Your task to perform on an android device: Search for razer nari on amazon, select the first entry, and add it to the cart. Image 0: 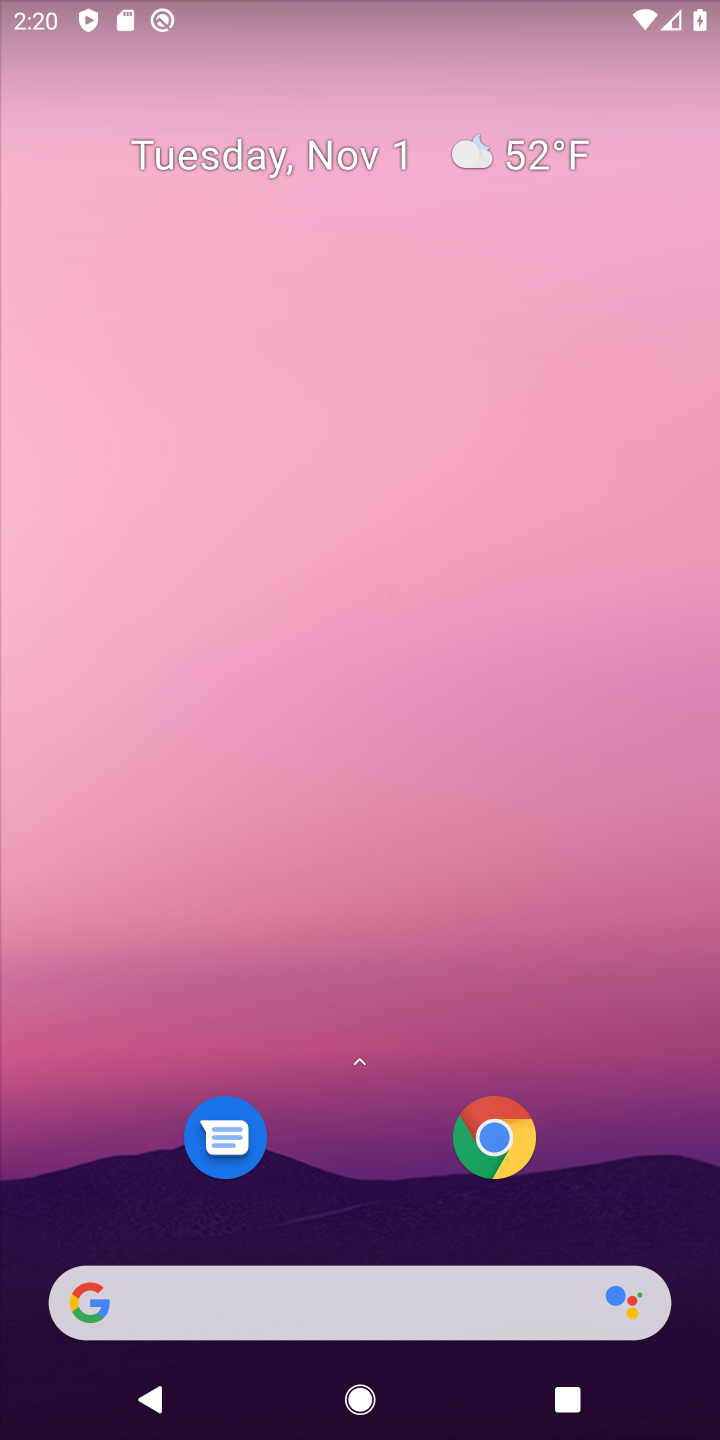
Step 0: click (225, 1311)
Your task to perform on an android device: Search for razer nari on amazon, select the first entry, and add it to the cart. Image 1: 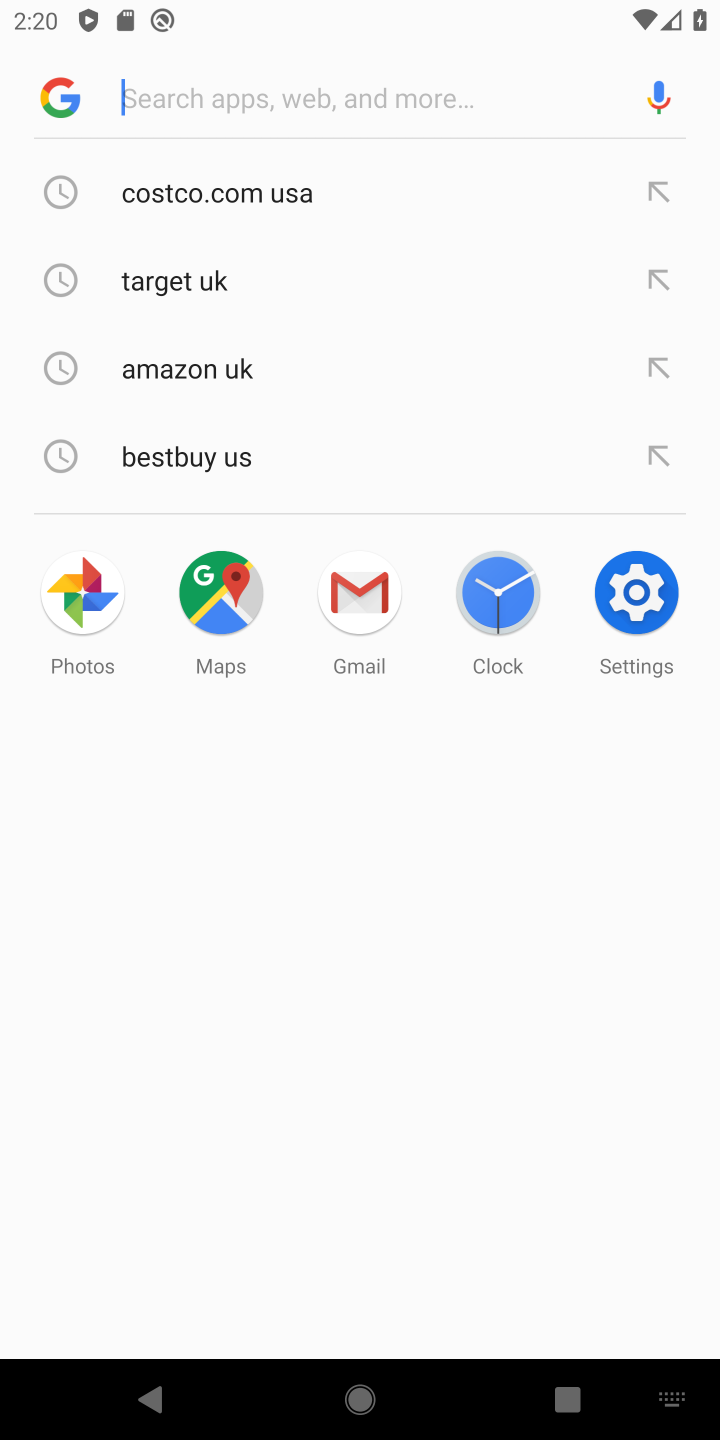
Step 1: type "amazon"
Your task to perform on an android device: Search for razer nari on amazon, select the first entry, and add it to the cart. Image 2: 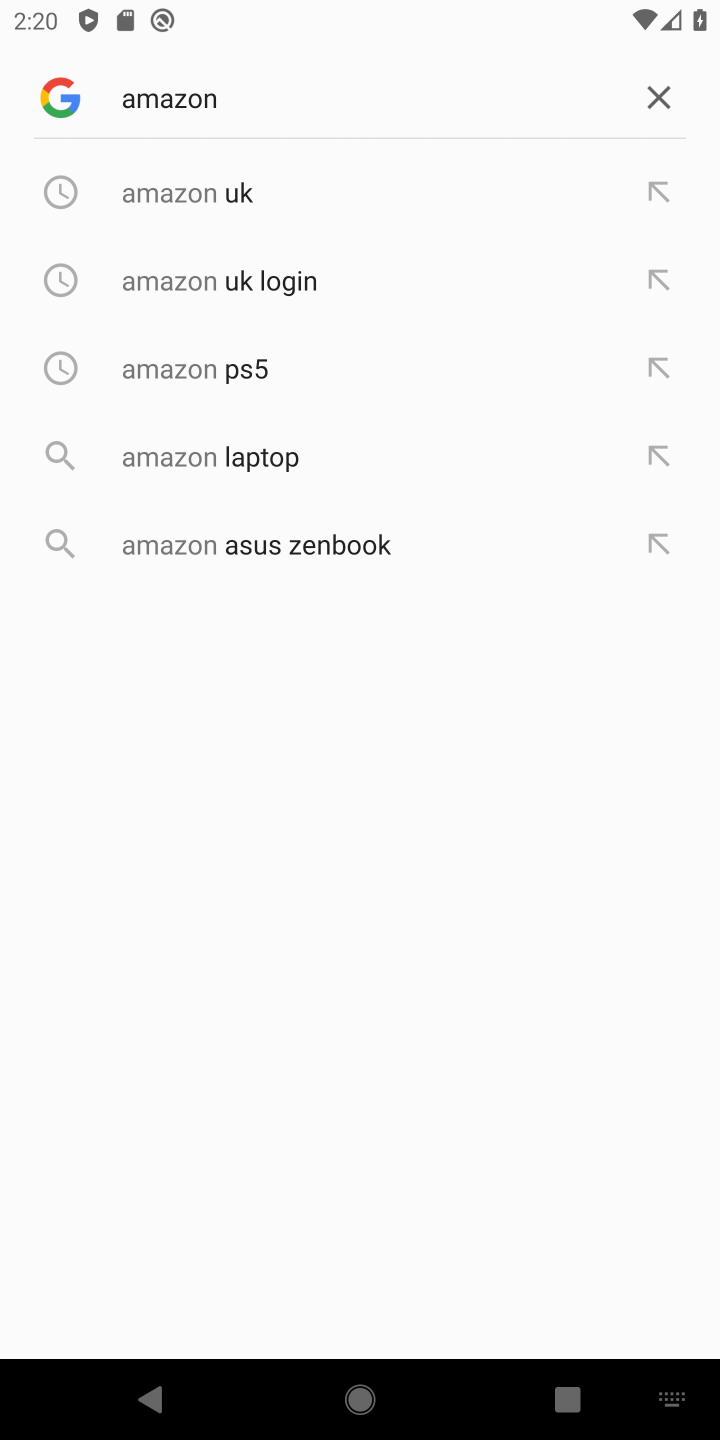
Step 2: click (198, 179)
Your task to perform on an android device: Search for razer nari on amazon, select the first entry, and add it to the cart. Image 3: 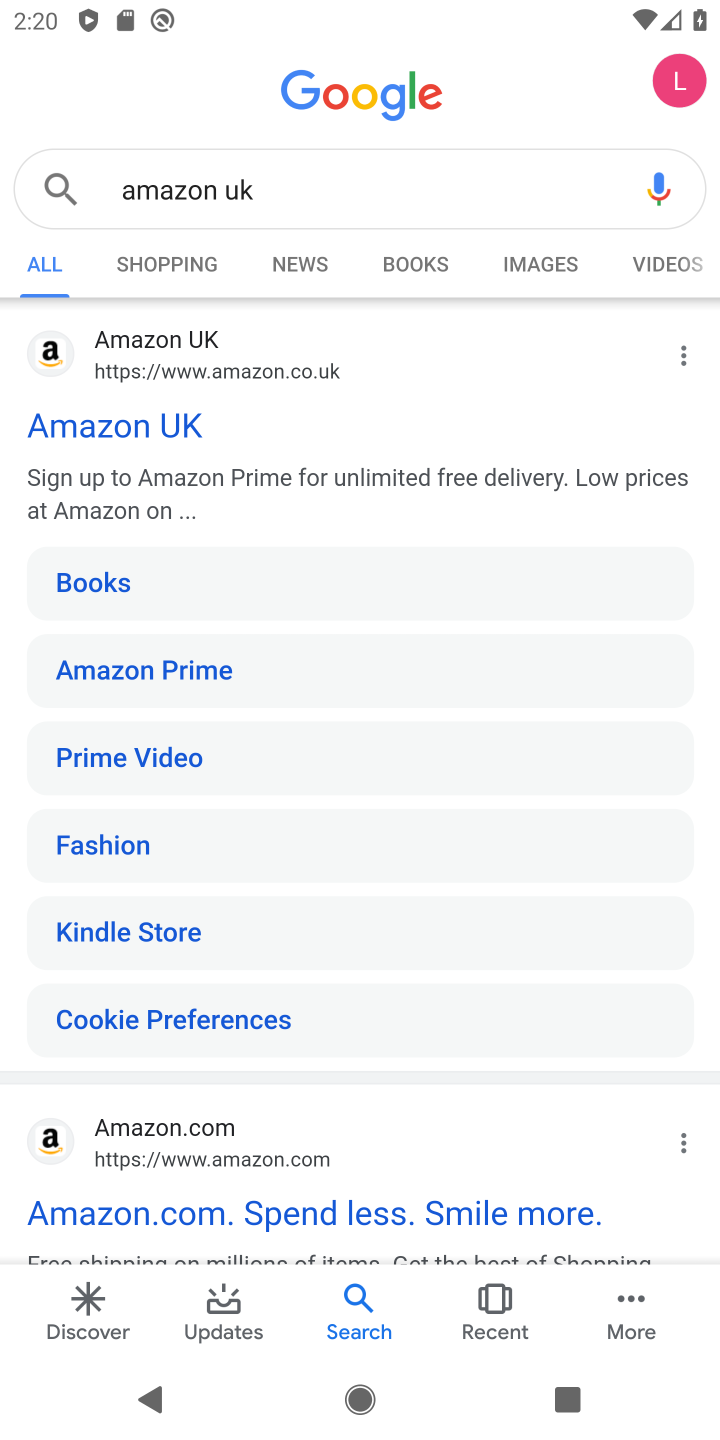
Step 3: click (142, 445)
Your task to perform on an android device: Search for razer nari on amazon, select the first entry, and add it to the cart. Image 4: 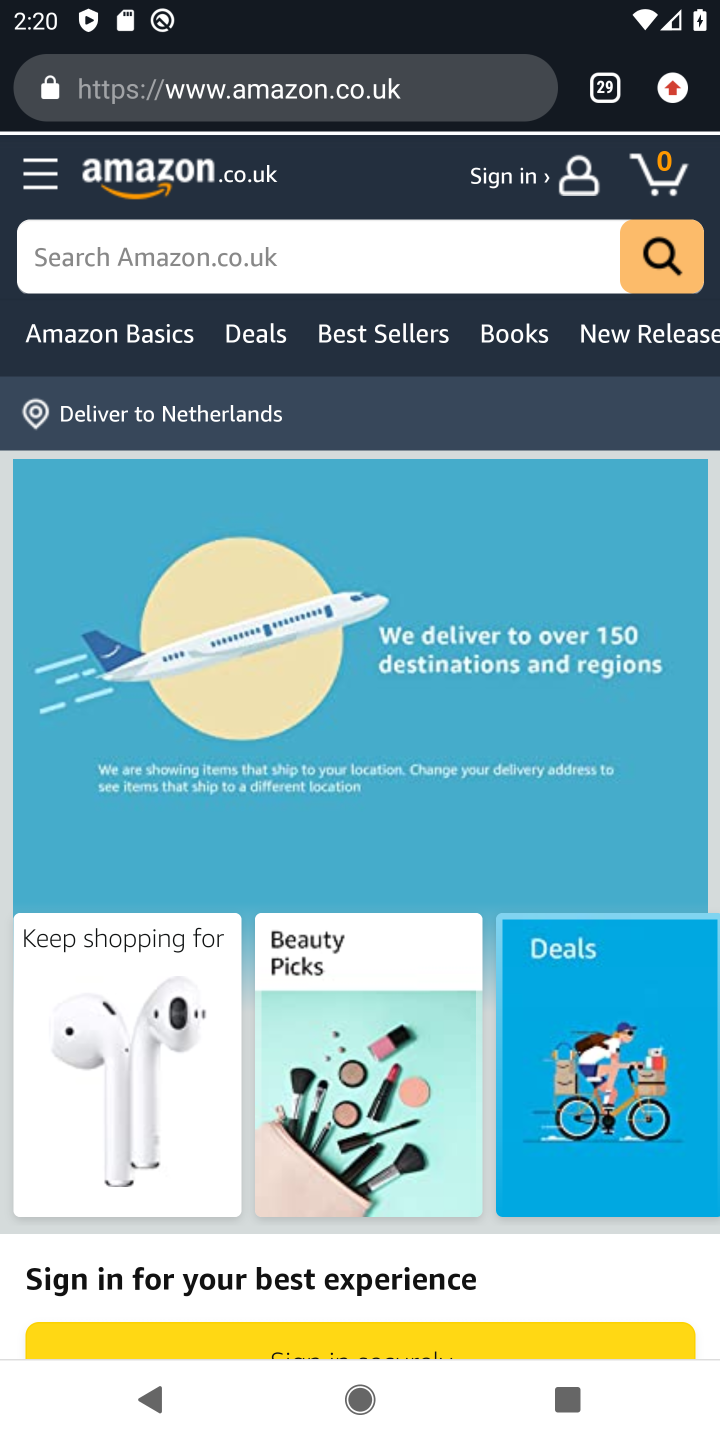
Step 4: click (352, 265)
Your task to perform on an android device: Search for razer nari on amazon, select the first entry, and add it to the cart. Image 5: 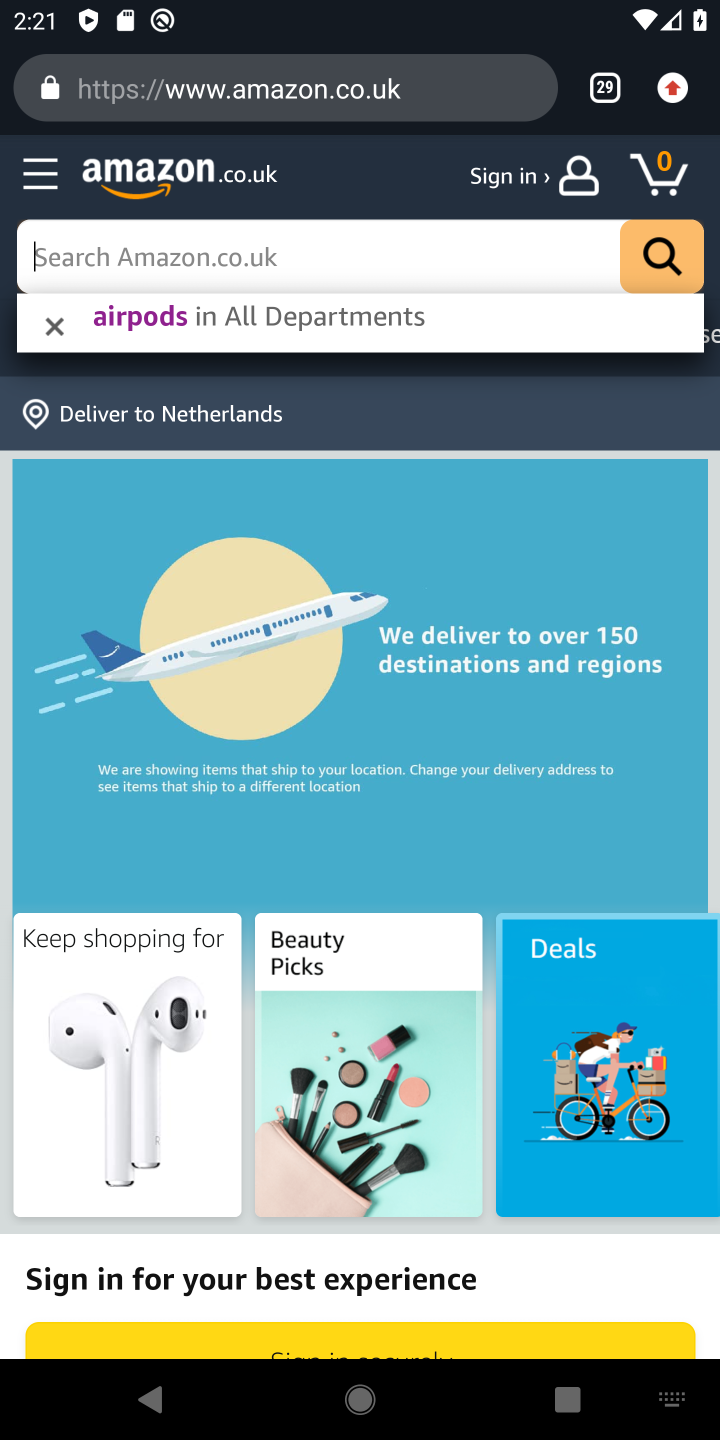
Step 5: type "razer naarui"
Your task to perform on an android device: Search for razer nari on amazon, select the first entry, and add it to the cart. Image 6: 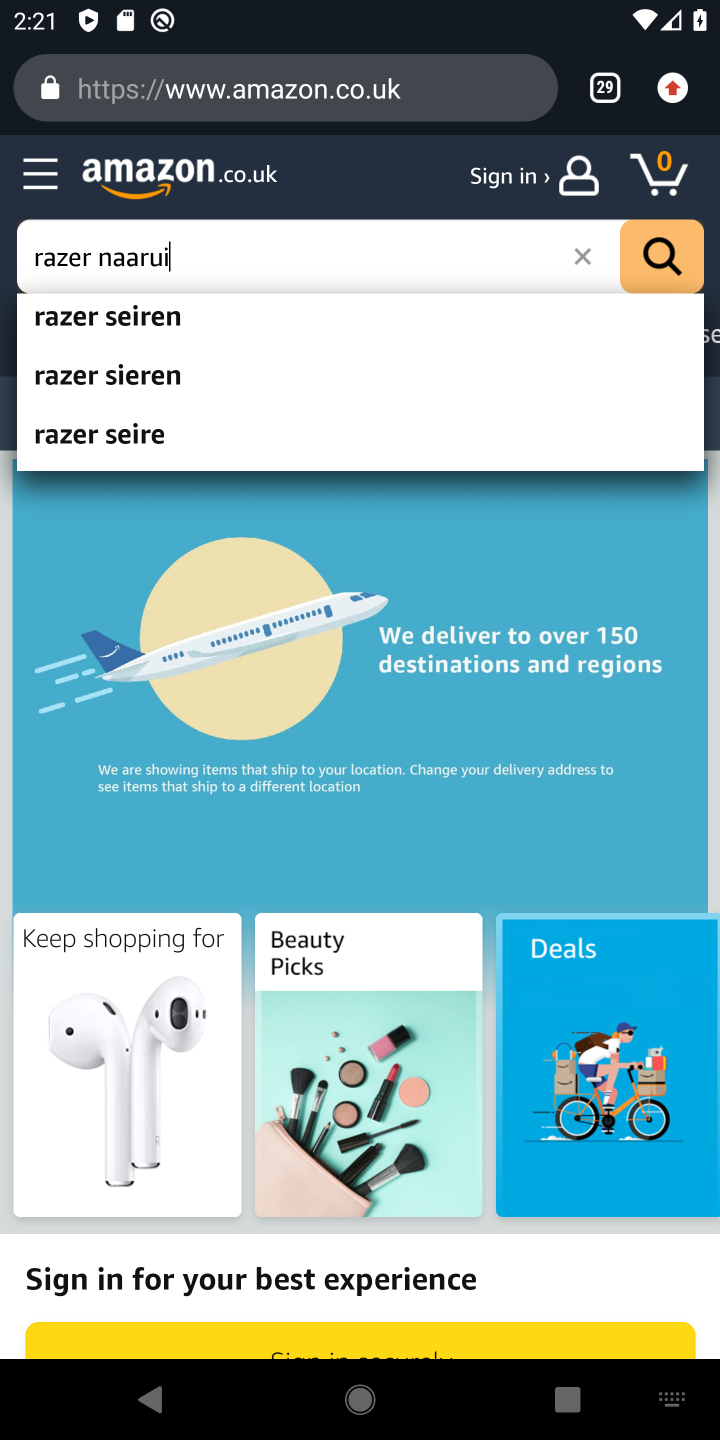
Step 6: click (178, 330)
Your task to perform on an android device: Search for razer nari on amazon, select the first entry, and add it to the cart. Image 7: 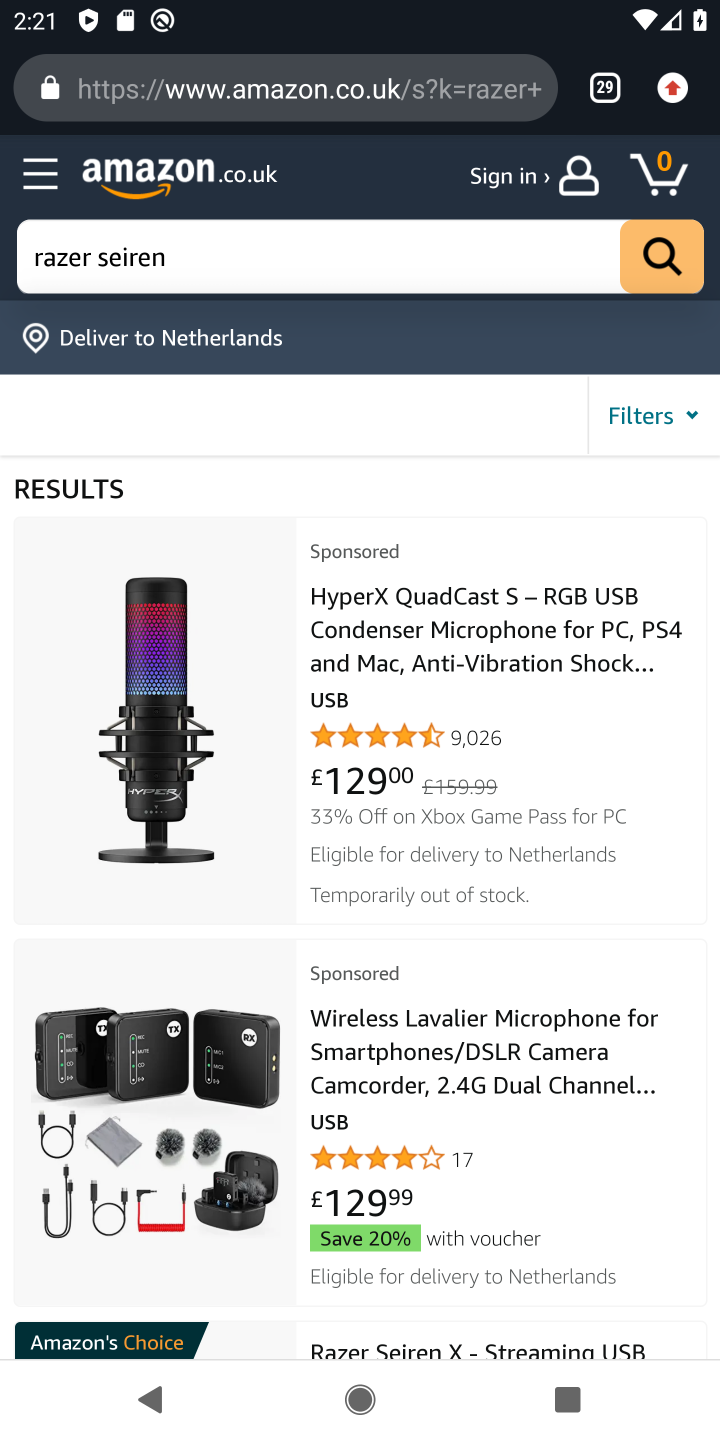
Step 7: click (417, 689)
Your task to perform on an android device: Search for razer nari on amazon, select the first entry, and add it to the cart. Image 8: 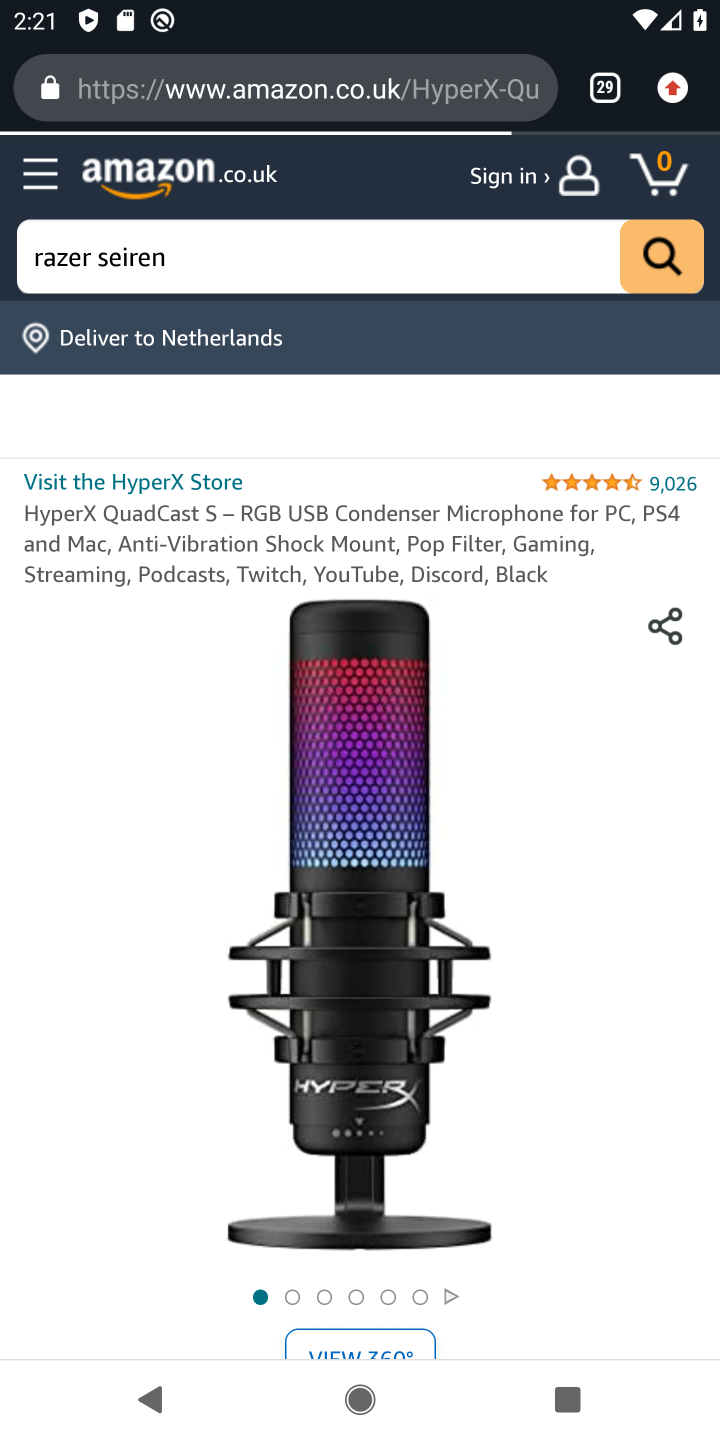
Step 8: drag from (511, 1293) to (321, 549)
Your task to perform on an android device: Search for razer nari on amazon, select the first entry, and add it to the cart. Image 9: 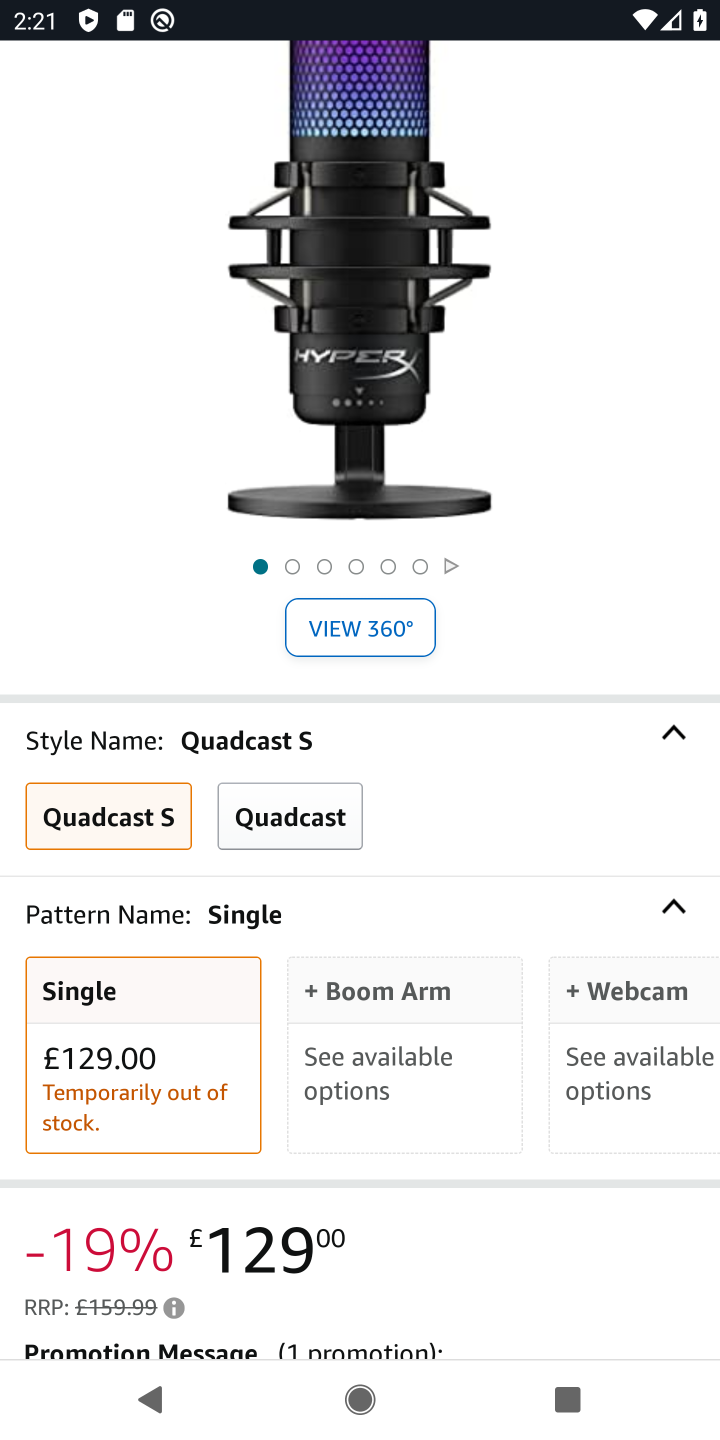
Step 9: drag from (413, 1204) to (311, 485)
Your task to perform on an android device: Search for razer nari on amazon, select the first entry, and add it to the cart. Image 10: 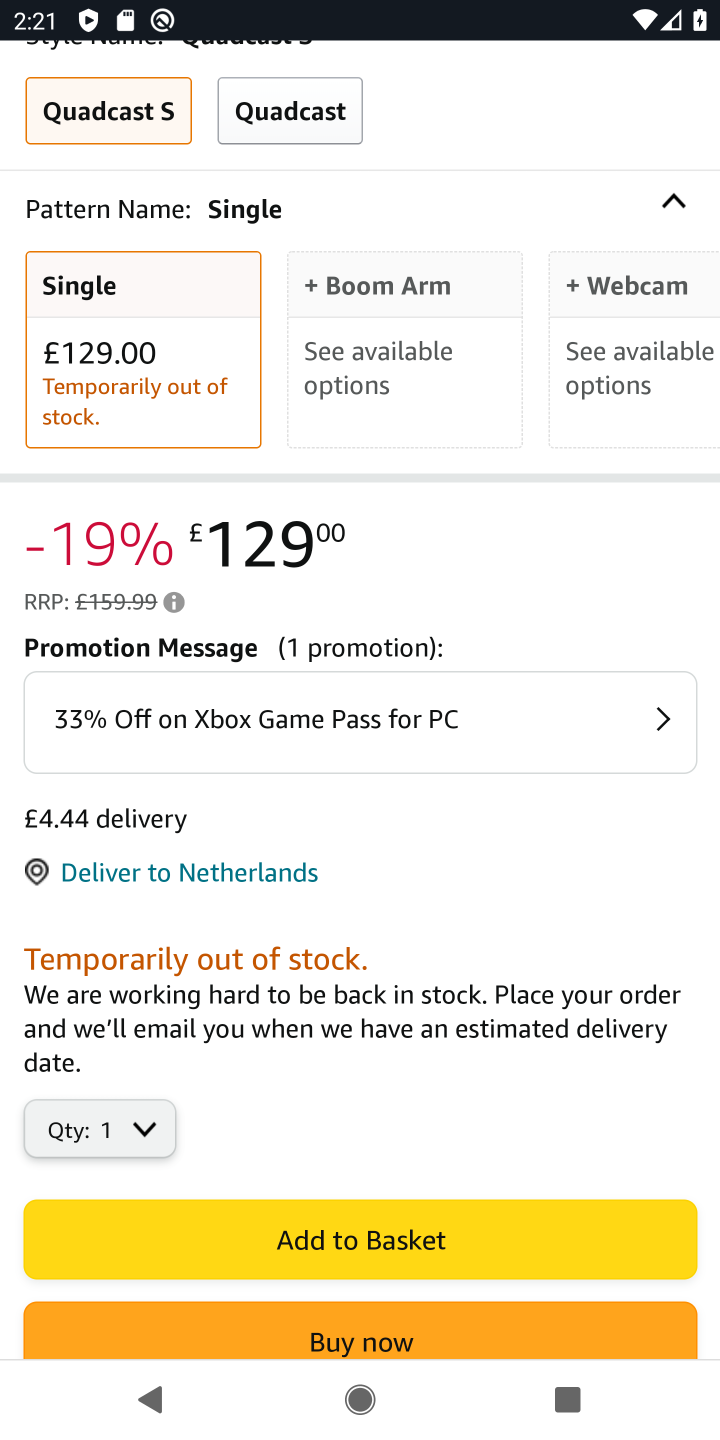
Step 10: click (405, 1239)
Your task to perform on an android device: Search for razer nari on amazon, select the first entry, and add it to the cart. Image 11: 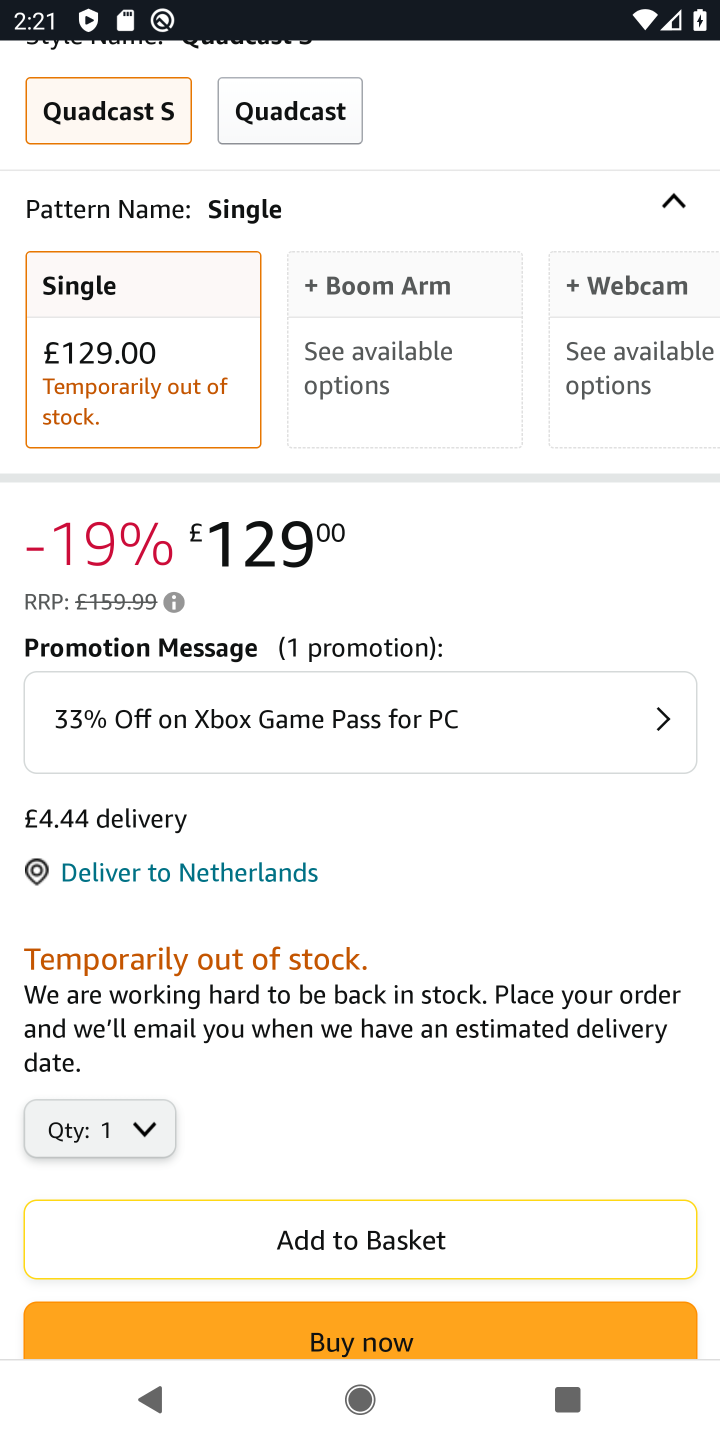
Step 11: task complete